Your task to perform on an android device: Check the settings for the Facebook app Image 0: 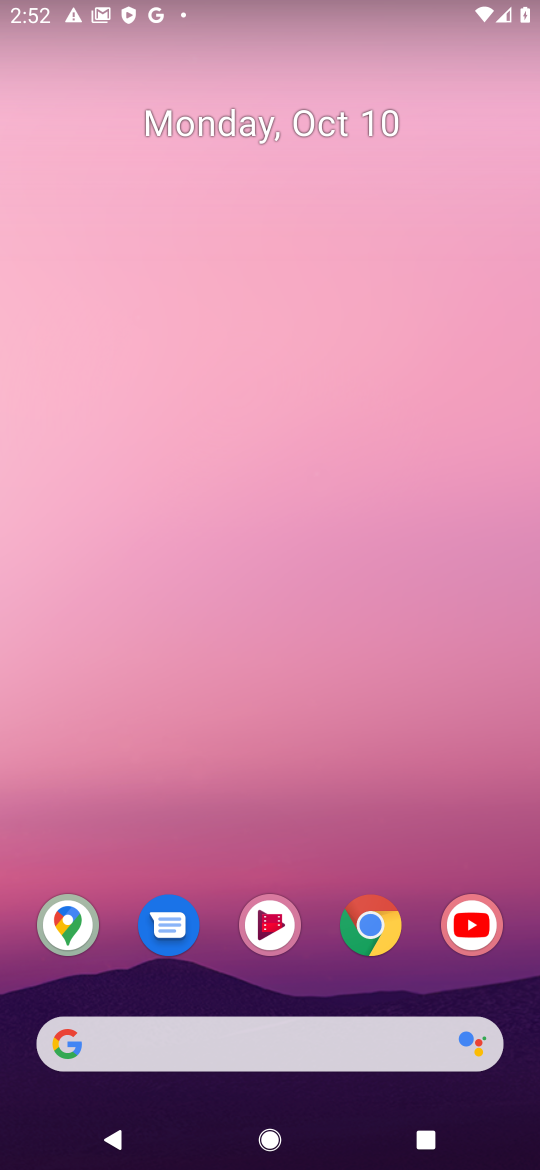
Step 0: drag from (241, 1053) to (85, 99)
Your task to perform on an android device: Check the settings for the Facebook app Image 1: 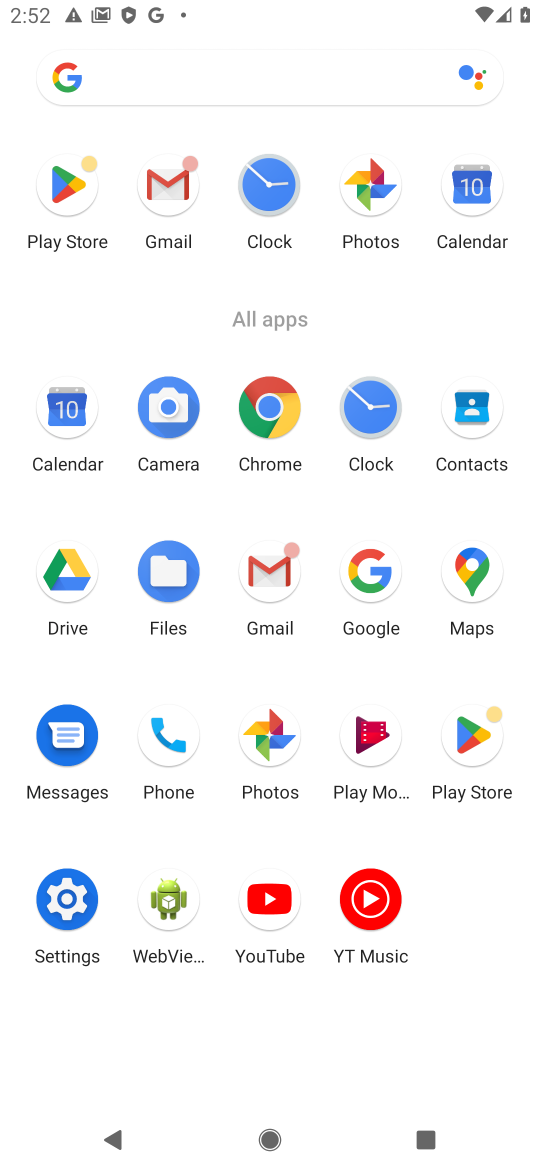
Step 1: task complete